Your task to perform on an android device: Go to notification settings Image 0: 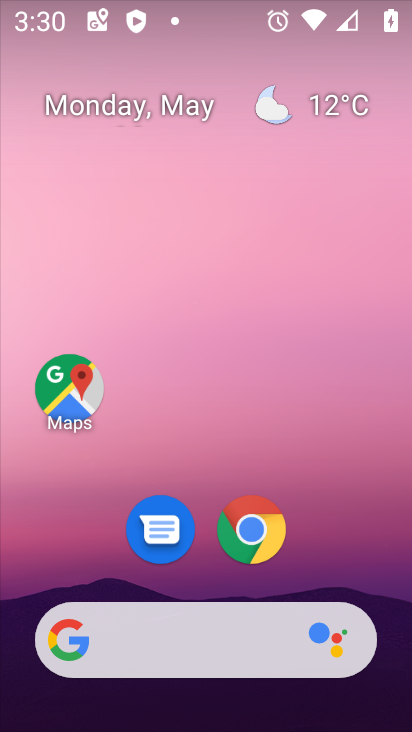
Step 0: drag from (341, 560) to (320, 111)
Your task to perform on an android device: Go to notification settings Image 1: 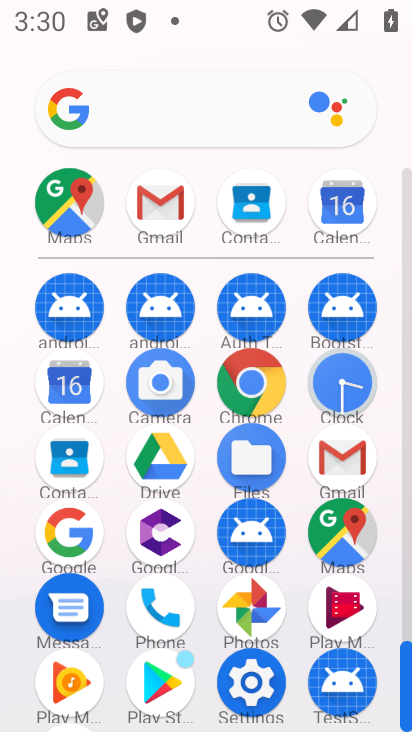
Step 1: click (252, 696)
Your task to perform on an android device: Go to notification settings Image 2: 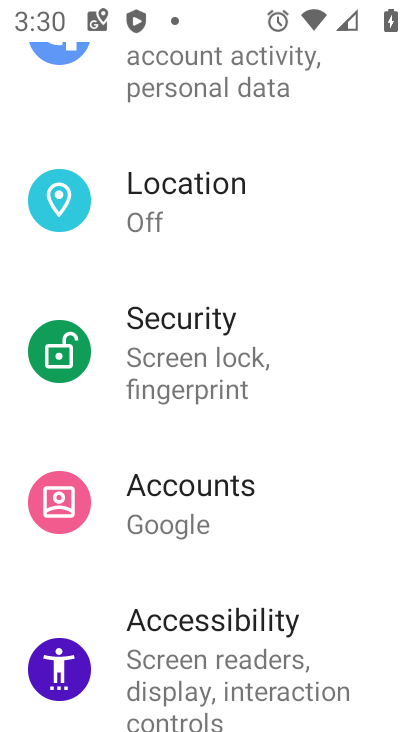
Step 2: drag from (233, 356) to (257, 593)
Your task to perform on an android device: Go to notification settings Image 3: 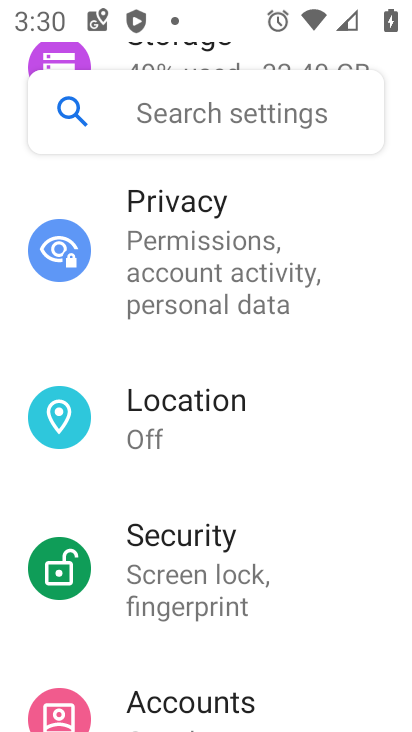
Step 3: drag from (234, 338) to (245, 600)
Your task to perform on an android device: Go to notification settings Image 4: 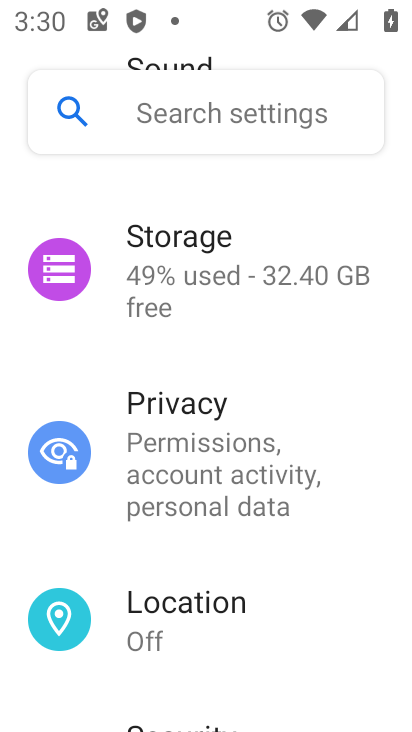
Step 4: drag from (186, 323) to (187, 504)
Your task to perform on an android device: Go to notification settings Image 5: 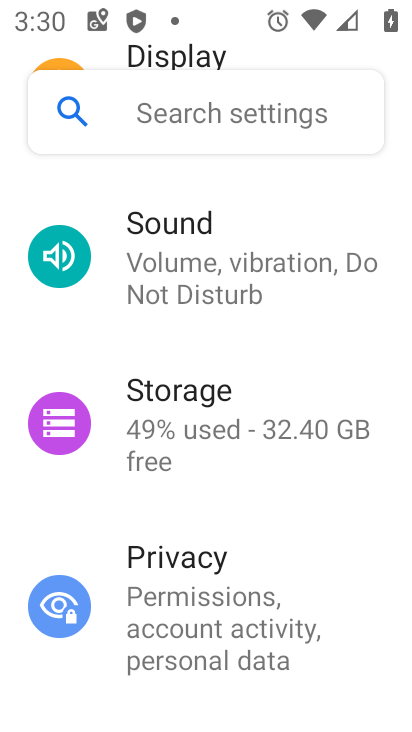
Step 5: drag from (193, 279) to (206, 471)
Your task to perform on an android device: Go to notification settings Image 6: 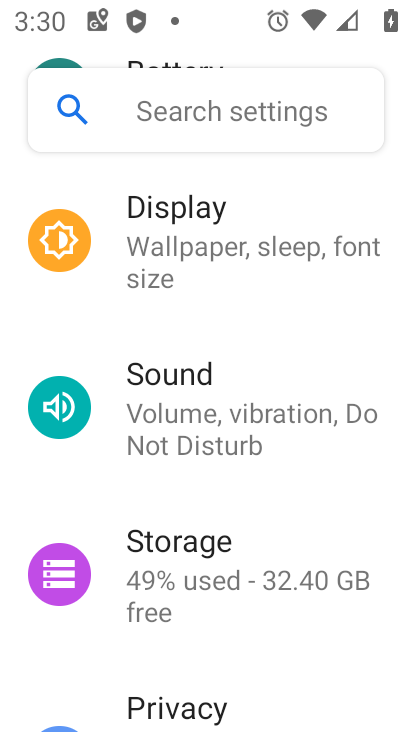
Step 6: drag from (215, 309) to (211, 486)
Your task to perform on an android device: Go to notification settings Image 7: 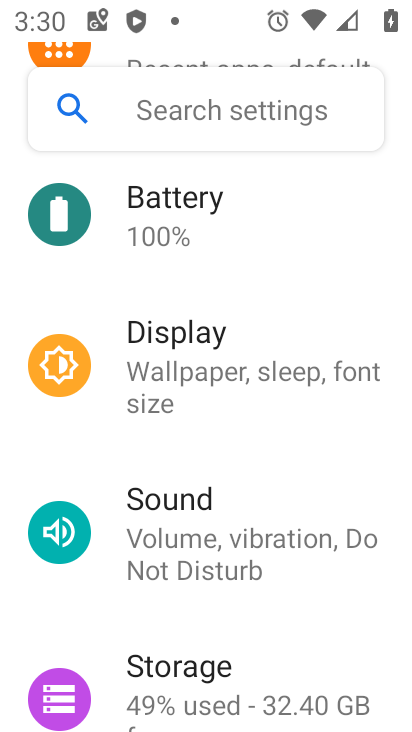
Step 7: drag from (210, 326) to (202, 528)
Your task to perform on an android device: Go to notification settings Image 8: 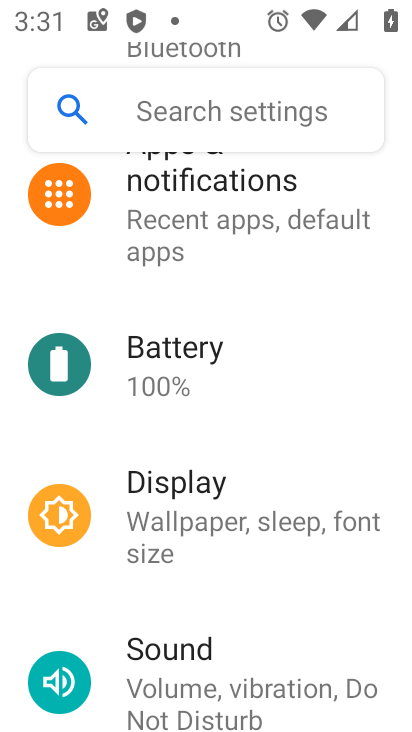
Step 8: drag from (191, 277) to (209, 420)
Your task to perform on an android device: Go to notification settings Image 9: 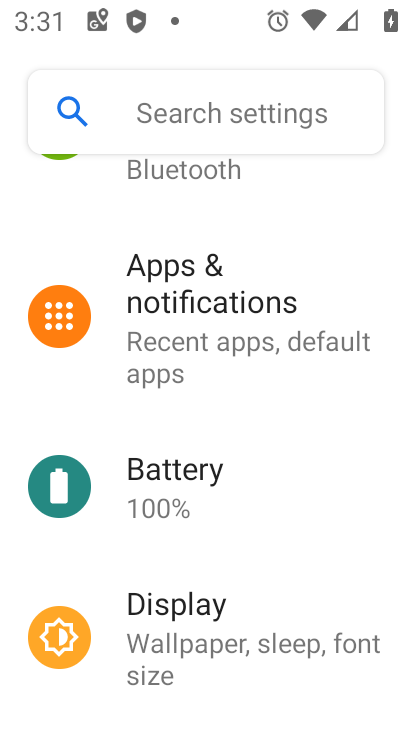
Step 9: click (186, 304)
Your task to perform on an android device: Go to notification settings Image 10: 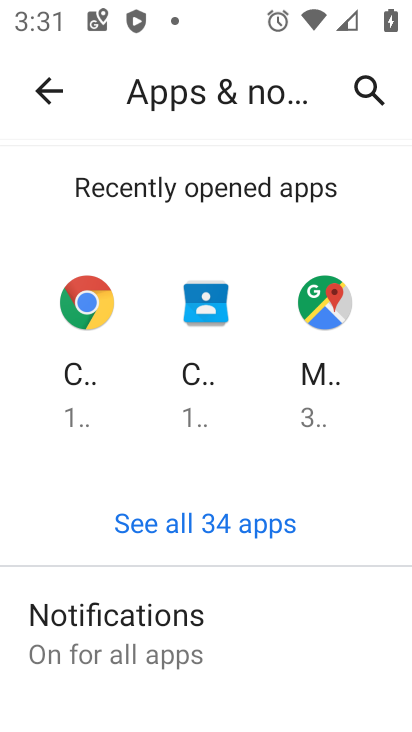
Step 10: click (176, 641)
Your task to perform on an android device: Go to notification settings Image 11: 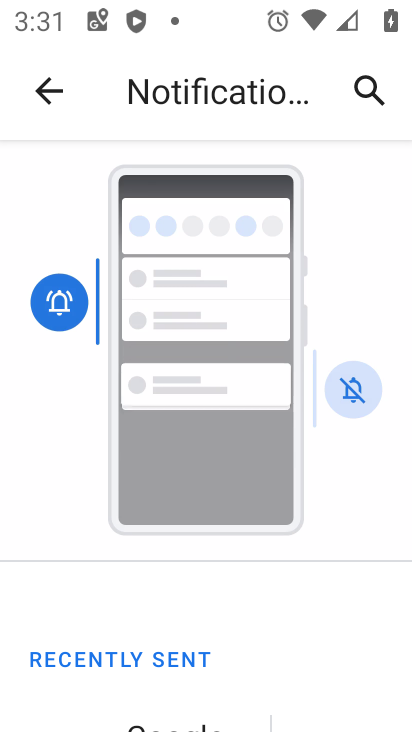
Step 11: task complete